Your task to perform on an android device: What's on my calendar today? Image 0: 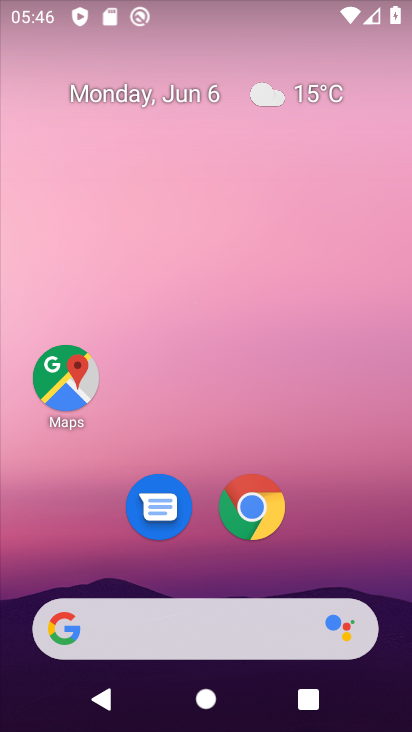
Step 0: drag from (216, 572) to (134, 0)
Your task to perform on an android device: What's on my calendar today? Image 1: 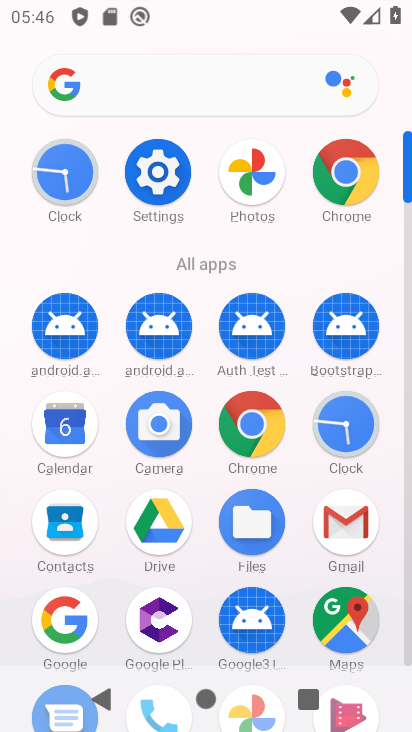
Step 1: click (58, 440)
Your task to perform on an android device: What's on my calendar today? Image 2: 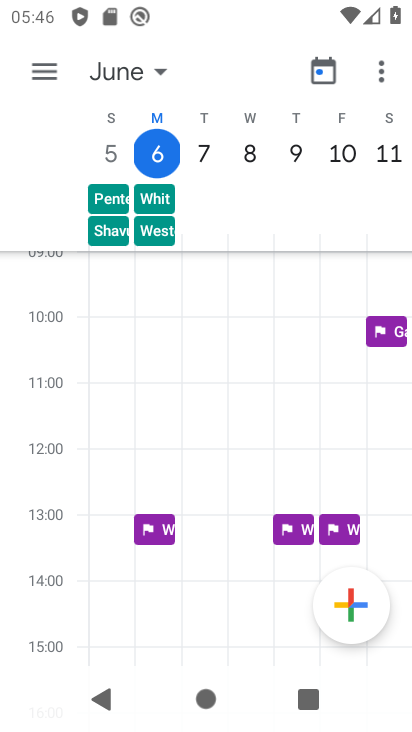
Step 2: click (32, 68)
Your task to perform on an android device: What's on my calendar today? Image 3: 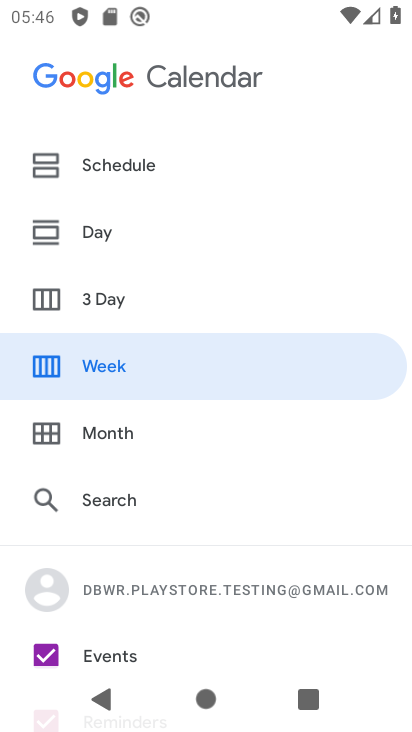
Step 3: click (105, 152)
Your task to perform on an android device: What's on my calendar today? Image 4: 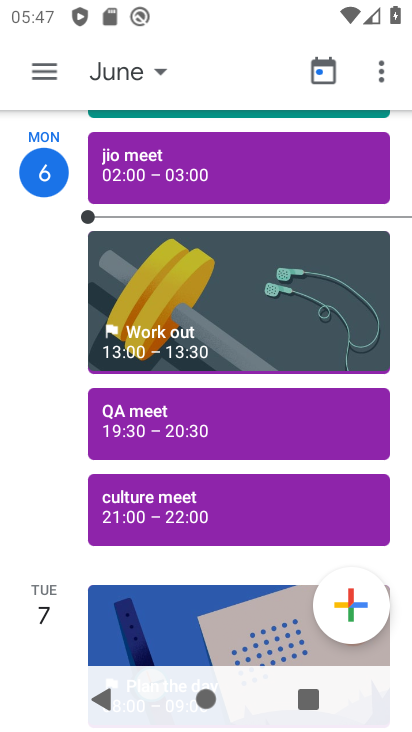
Step 4: task complete